Your task to perform on an android device: When is my next appointment? Image 0: 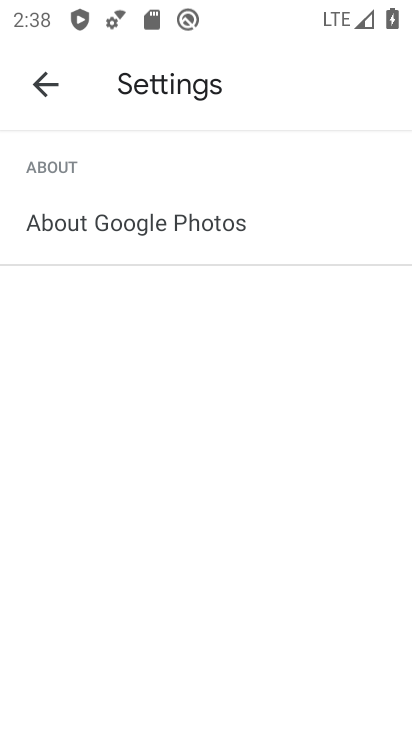
Step 0: click (35, 85)
Your task to perform on an android device: When is my next appointment? Image 1: 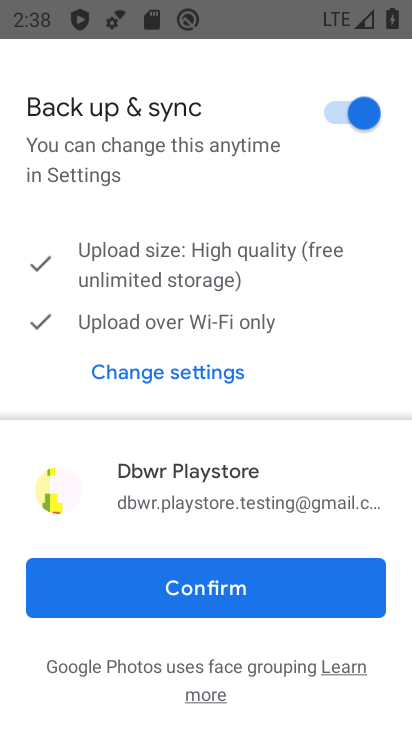
Step 1: press home button
Your task to perform on an android device: When is my next appointment? Image 2: 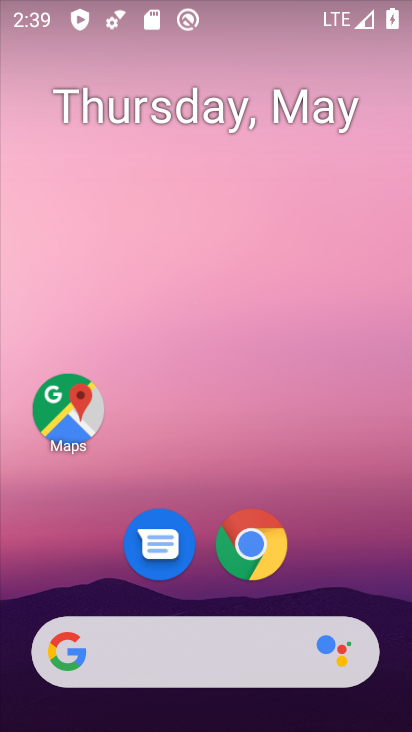
Step 2: drag from (296, 714) to (265, 73)
Your task to perform on an android device: When is my next appointment? Image 3: 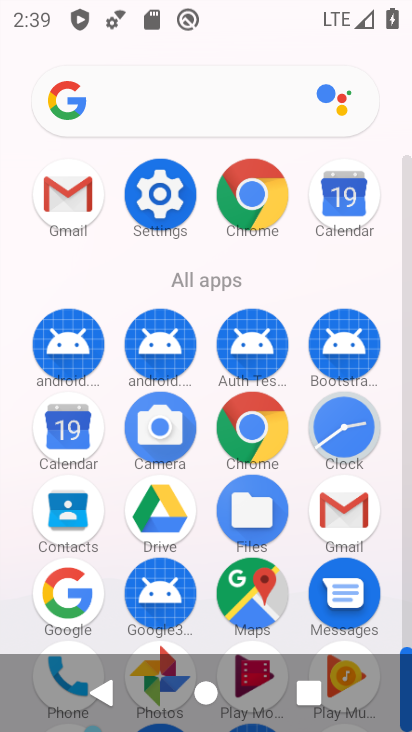
Step 3: click (69, 433)
Your task to perform on an android device: When is my next appointment? Image 4: 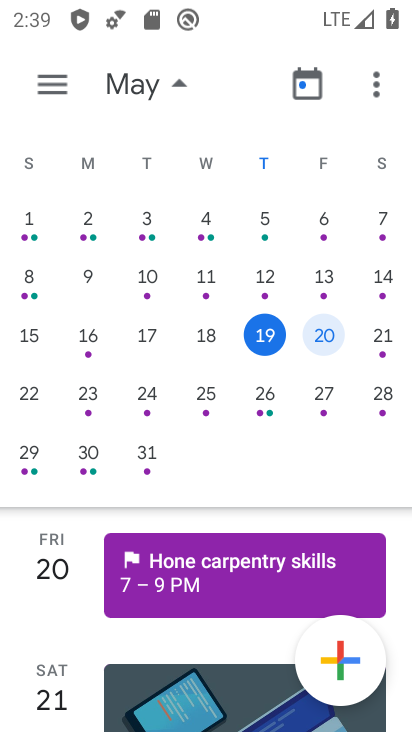
Step 4: click (43, 78)
Your task to perform on an android device: When is my next appointment? Image 5: 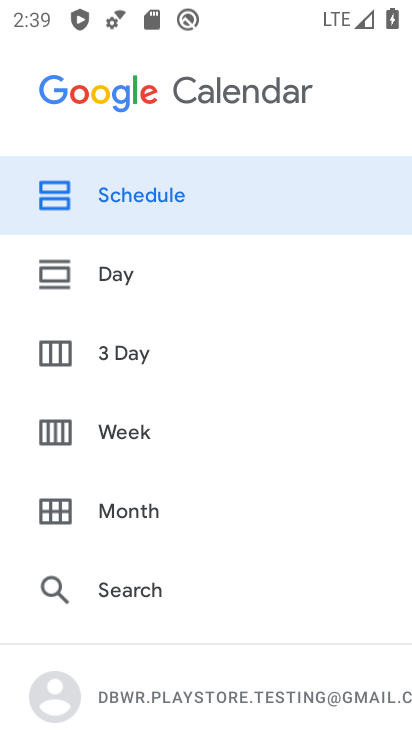
Step 5: click (148, 212)
Your task to perform on an android device: When is my next appointment? Image 6: 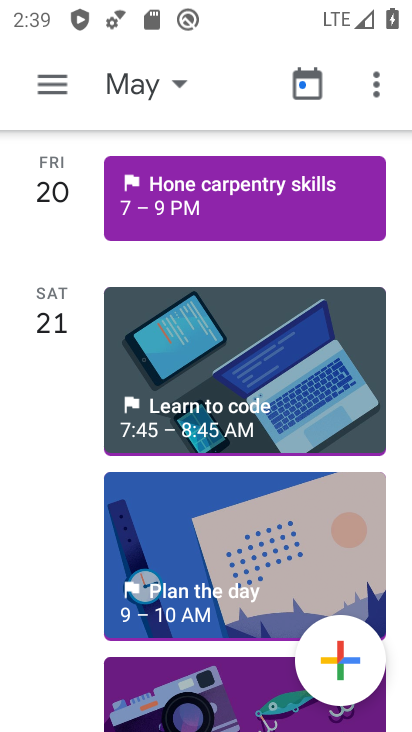
Step 6: task complete